Your task to perform on an android device: Open Google Image 0: 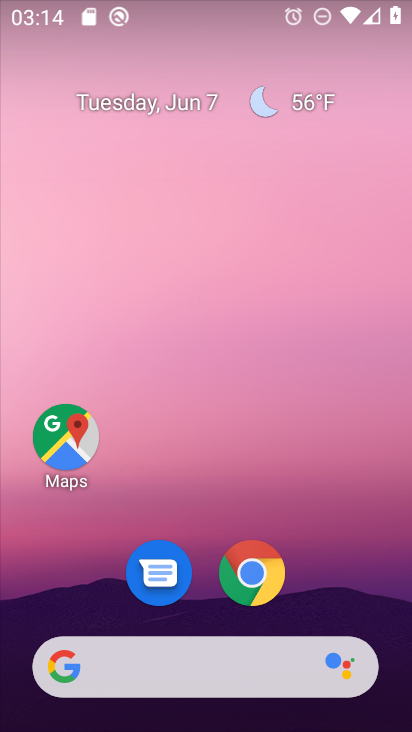
Step 0: drag from (295, 577) to (258, 10)
Your task to perform on an android device: Open Google Image 1: 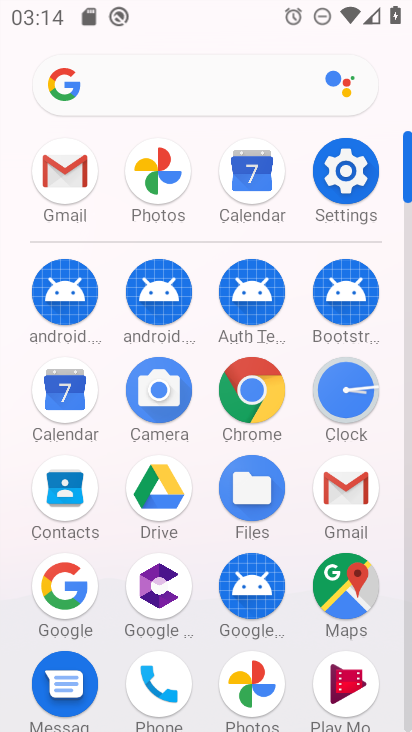
Step 1: click (69, 584)
Your task to perform on an android device: Open Google Image 2: 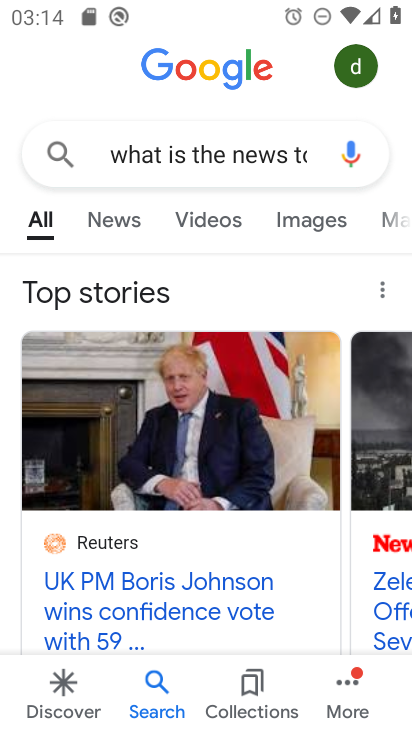
Step 2: task complete